Your task to perform on an android device: turn off smart reply in the gmail app Image 0: 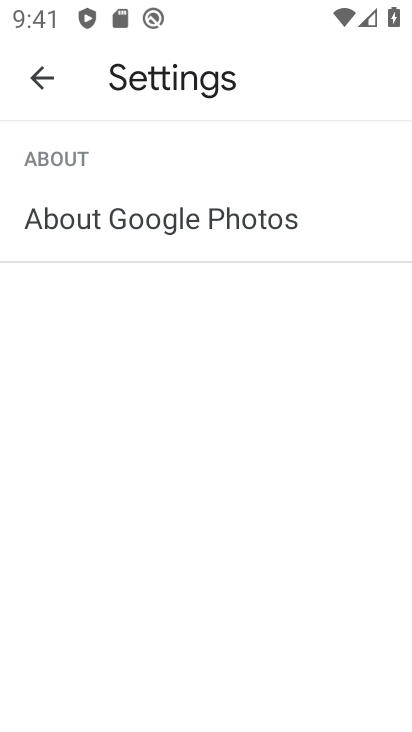
Step 0: press home button
Your task to perform on an android device: turn off smart reply in the gmail app Image 1: 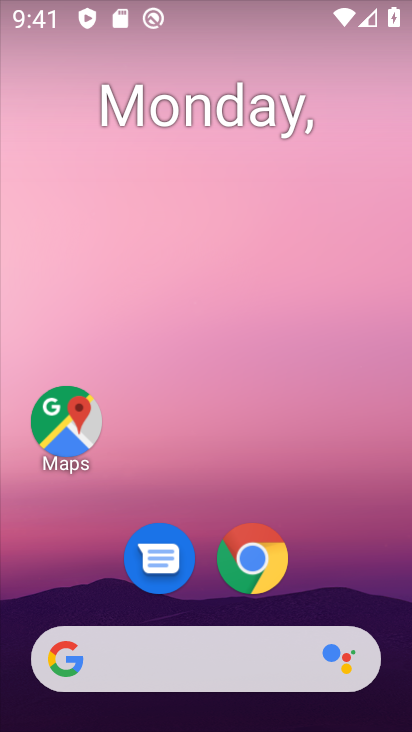
Step 1: drag from (364, 572) to (342, 236)
Your task to perform on an android device: turn off smart reply in the gmail app Image 2: 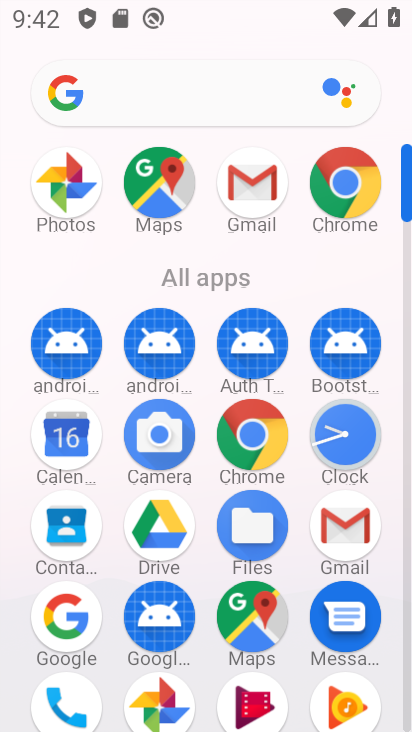
Step 2: click (356, 535)
Your task to perform on an android device: turn off smart reply in the gmail app Image 3: 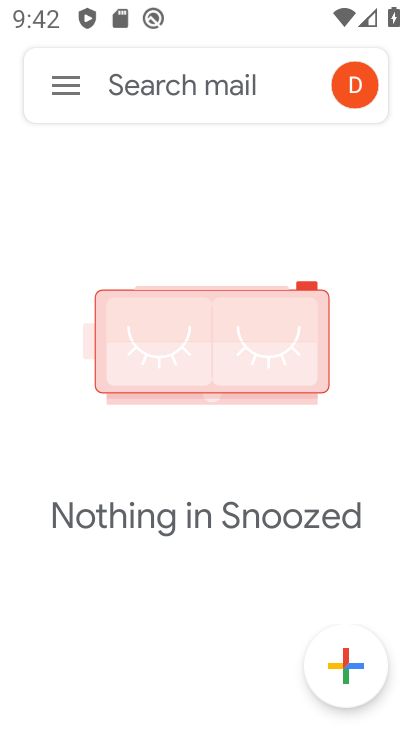
Step 3: click (64, 97)
Your task to perform on an android device: turn off smart reply in the gmail app Image 4: 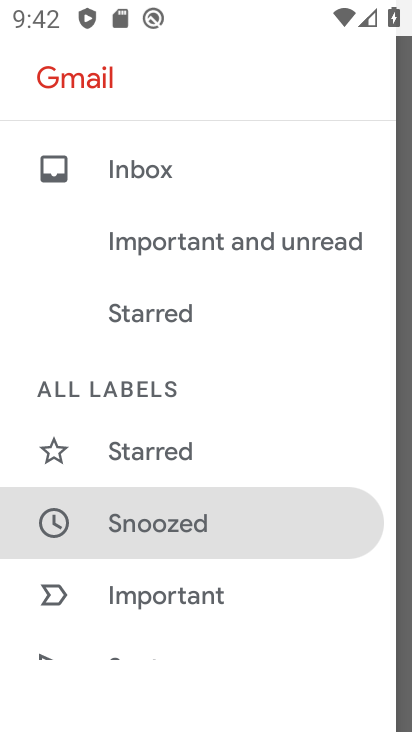
Step 4: drag from (305, 573) to (291, 354)
Your task to perform on an android device: turn off smart reply in the gmail app Image 5: 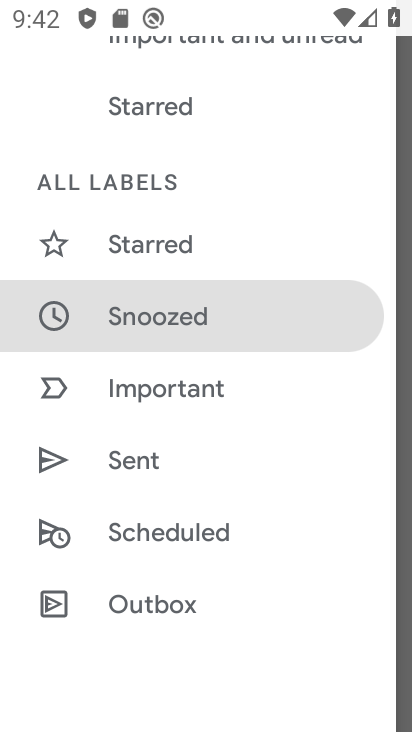
Step 5: drag from (313, 539) to (321, 351)
Your task to perform on an android device: turn off smart reply in the gmail app Image 6: 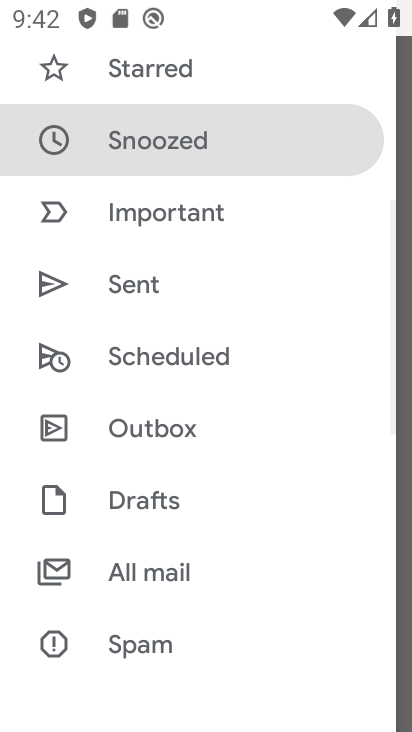
Step 6: drag from (332, 545) to (337, 402)
Your task to perform on an android device: turn off smart reply in the gmail app Image 7: 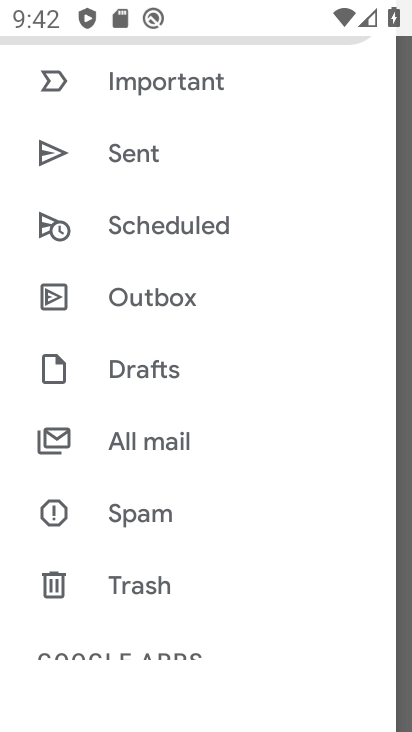
Step 7: drag from (295, 601) to (303, 431)
Your task to perform on an android device: turn off smart reply in the gmail app Image 8: 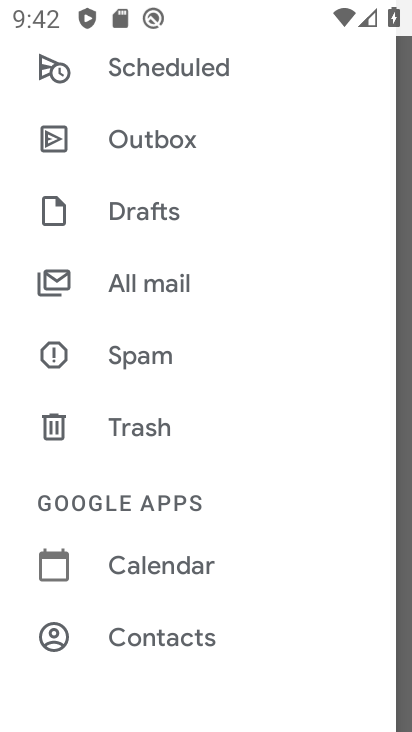
Step 8: drag from (255, 609) to (277, 434)
Your task to perform on an android device: turn off smart reply in the gmail app Image 9: 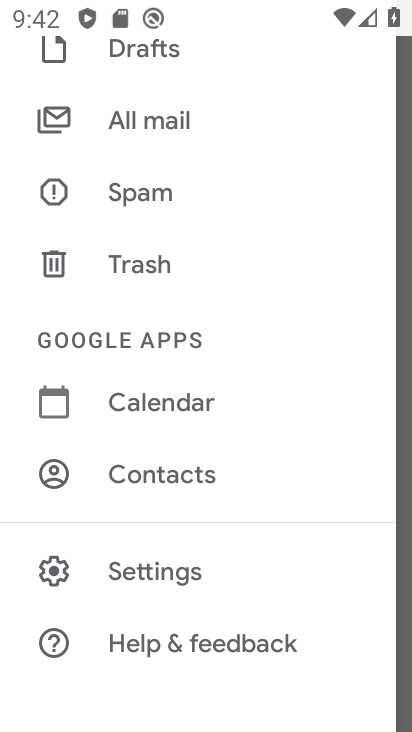
Step 9: click (183, 584)
Your task to perform on an android device: turn off smart reply in the gmail app Image 10: 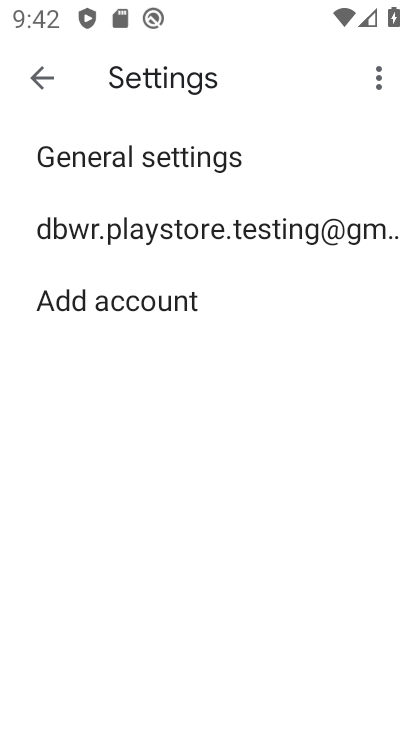
Step 10: click (247, 236)
Your task to perform on an android device: turn off smart reply in the gmail app Image 11: 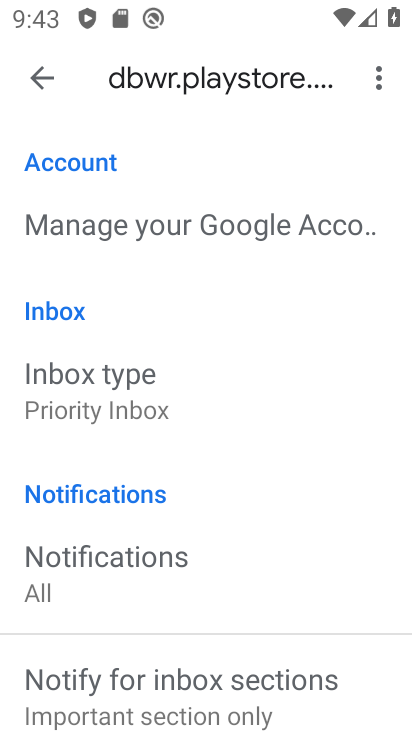
Step 11: drag from (324, 593) to (337, 356)
Your task to perform on an android device: turn off smart reply in the gmail app Image 12: 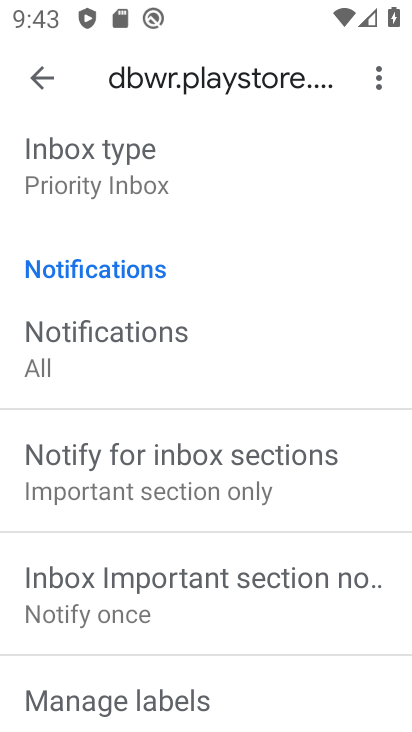
Step 12: drag from (340, 637) to (345, 415)
Your task to perform on an android device: turn off smart reply in the gmail app Image 13: 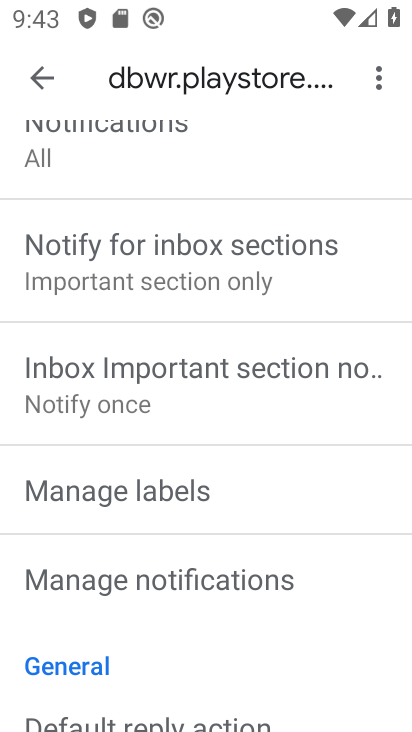
Step 13: drag from (335, 628) to (310, 480)
Your task to perform on an android device: turn off smart reply in the gmail app Image 14: 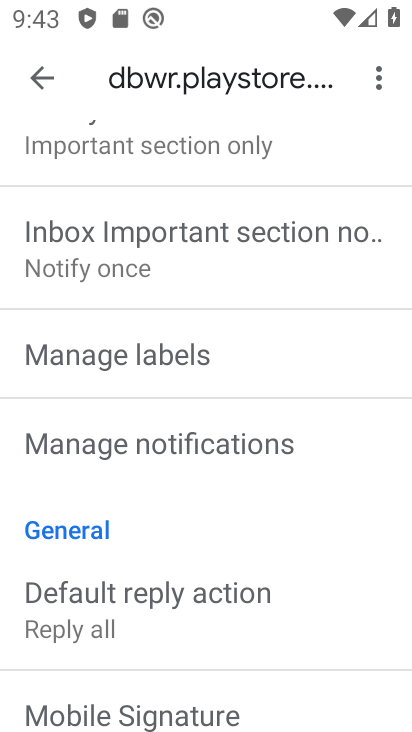
Step 14: drag from (273, 617) to (292, 451)
Your task to perform on an android device: turn off smart reply in the gmail app Image 15: 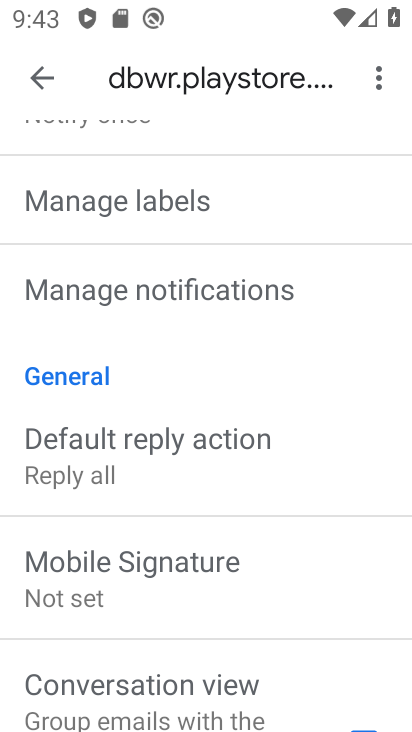
Step 15: drag from (293, 641) to (291, 518)
Your task to perform on an android device: turn off smart reply in the gmail app Image 16: 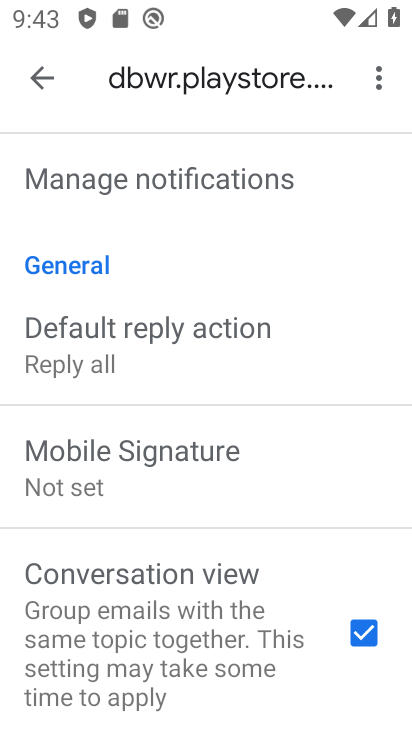
Step 16: drag from (298, 618) to (301, 488)
Your task to perform on an android device: turn off smart reply in the gmail app Image 17: 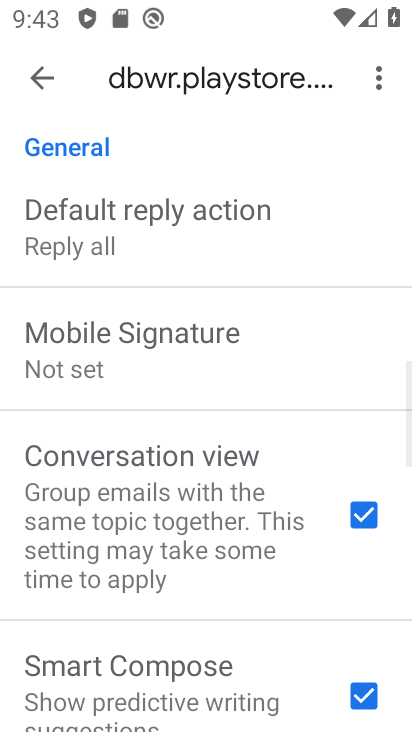
Step 17: drag from (279, 623) to (275, 510)
Your task to perform on an android device: turn off smart reply in the gmail app Image 18: 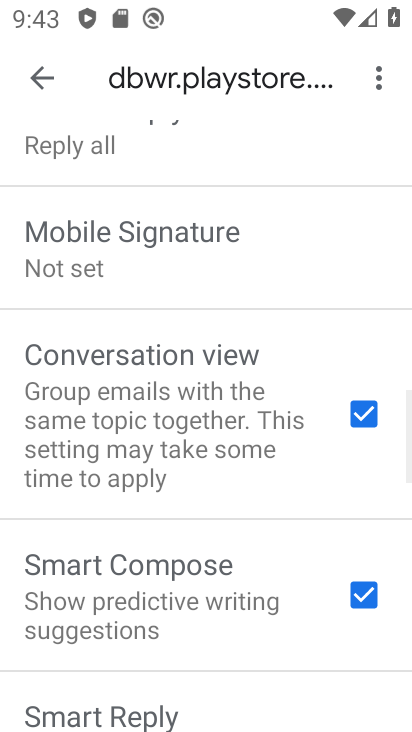
Step 18: drag from (272, 642) to (265, 552)
Your task to perform on an android device: turn off smart reply in the gmail app Image 19: 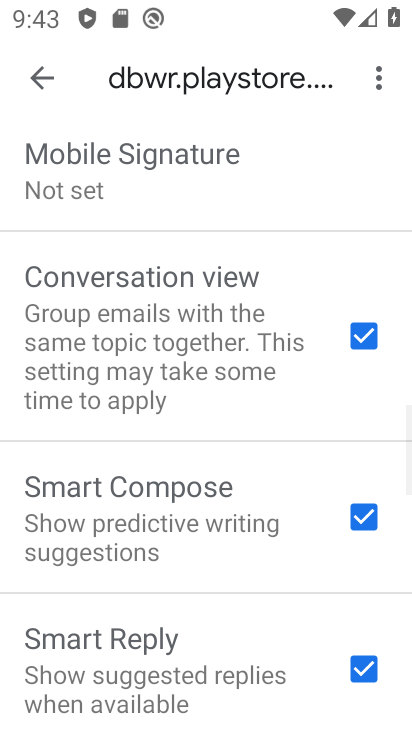
Step 19: drag from (266, 650) to (258, 554)
Your task to perform on an android device: turn off smart reply in the gmail app Image 20: 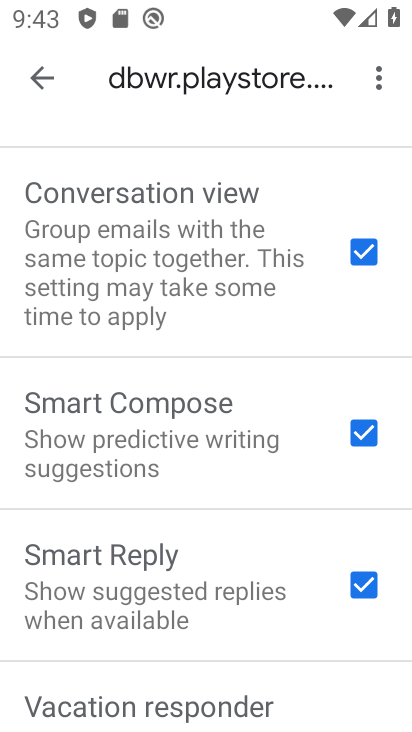
Step 20: drag from (234, 644) to (249, 502)
Your task to perform on an android device: turn off smart reply in the gmail app Image 21: 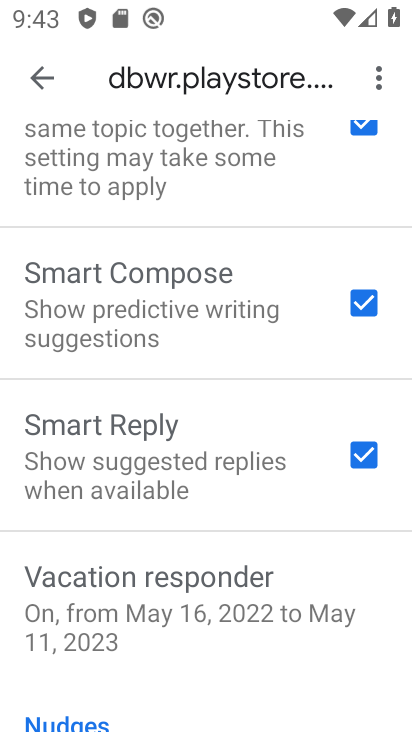
Step 21: click (358, 453)
Your task to perform on an android device: turn off smart reply in the gmail app Image 22: 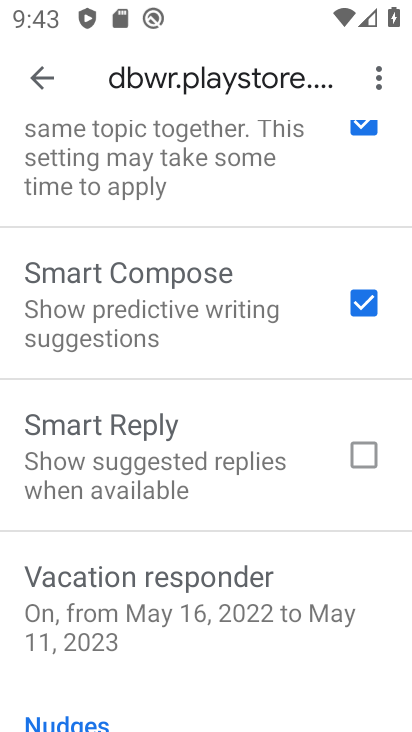
Step 22: task complete